Your task to perform on an android device: open chrome and create a bookmark for the current page Image 0: 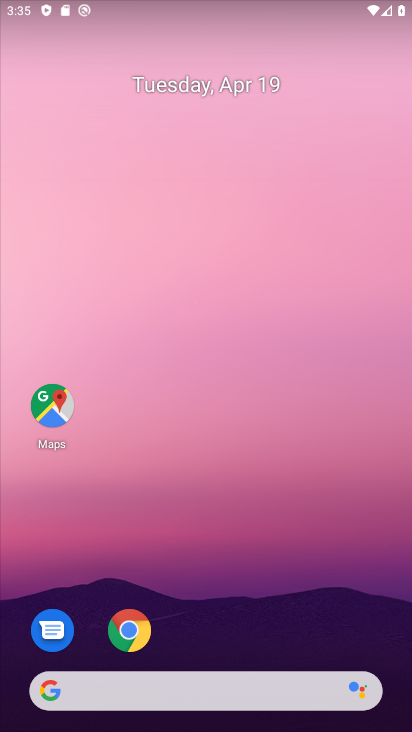
Step 0: drag from (258, 580) to (259, 31)
Your task to perform on an android device: open chrome and create a bookmark for the current page Image 1: 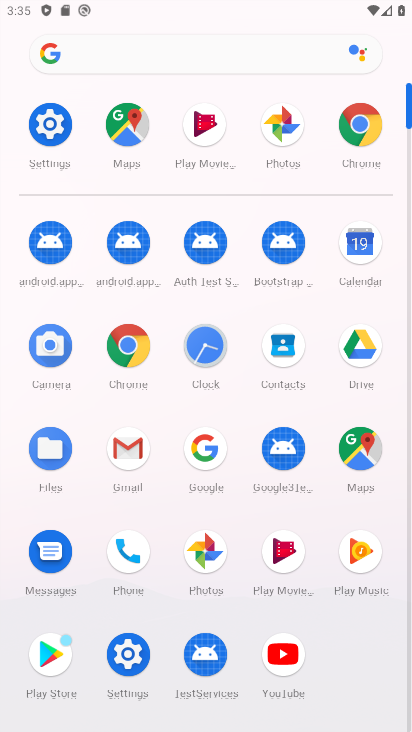
Step 1: click (354, 114)
Your task to perform on an android device: open chrome and create a bookmark for the current page Image 2: 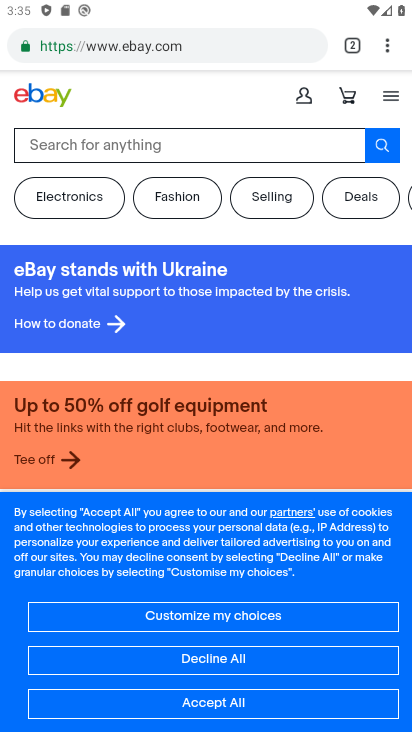
Step 2: task complete